Your task to perform on an android device: clear all cookies in the chrome app Image 0: 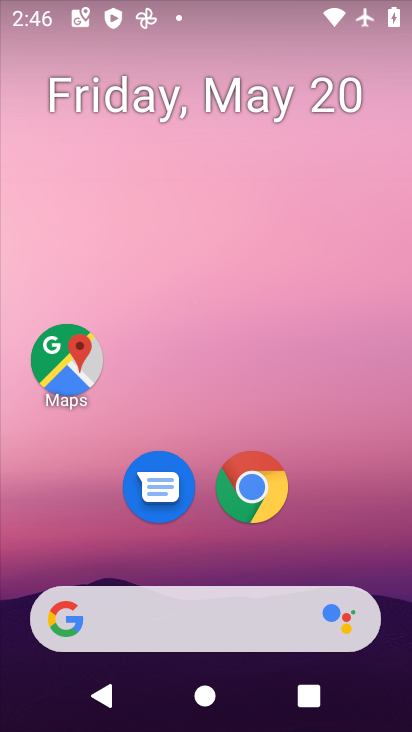
Step 0: drag from (349, 537) to (408, 60)
Your task to perform on an android device: clear all cookies in the chrome app Image 1: 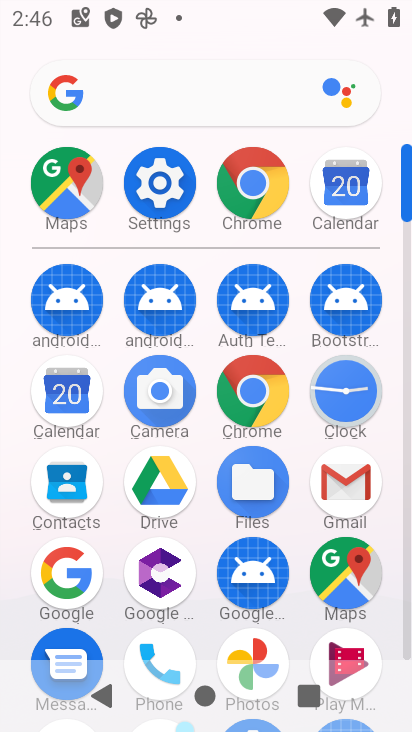
Step 1: click (258, 185)
Your task to perform on an android device: clear all cookies in the chrome app Image 2: 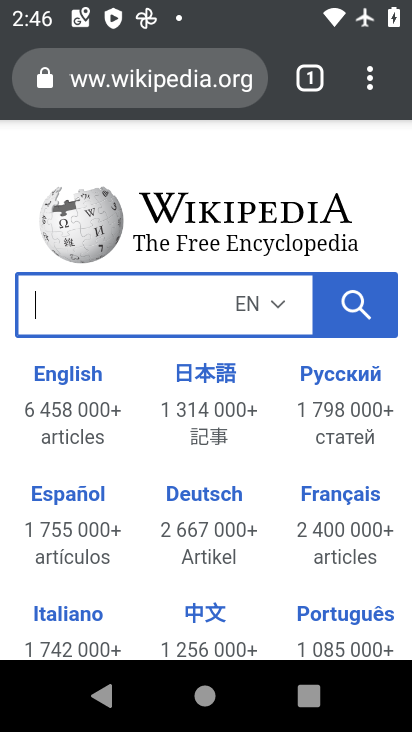
Step 2: task complete